Your task to perform on an android device: Check the news Image 0: 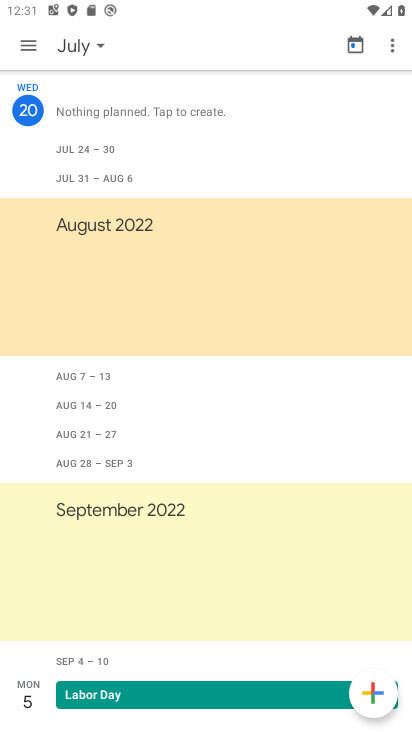
Step 0: press home button
Your task to perform on an android device: Check the news Image 1: 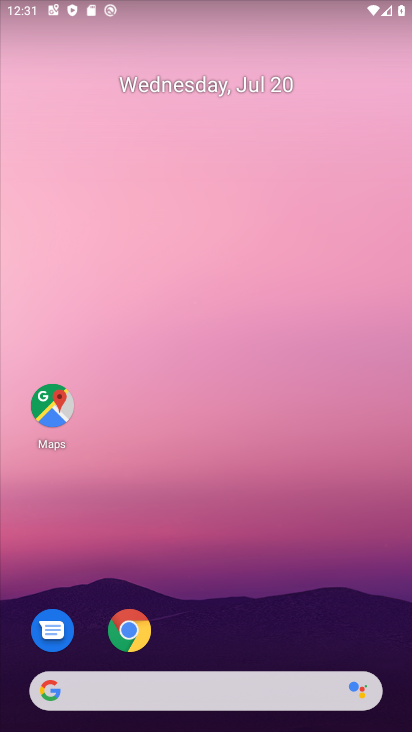
Step 1: click (220, 686)
Your task to perform on an android device: Check the news Image 2: 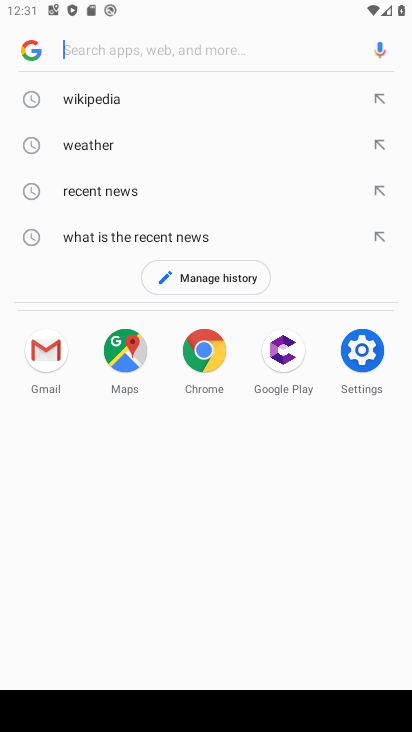
Step 2: type "news"
Your task to perform on an android device: Check the news Image 3: 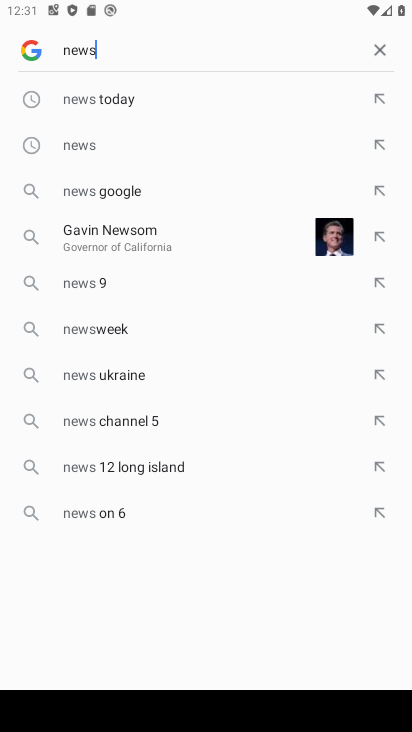
Step 3: click (88, 149)
Your task to perform on an android device: Check the news Image 4: 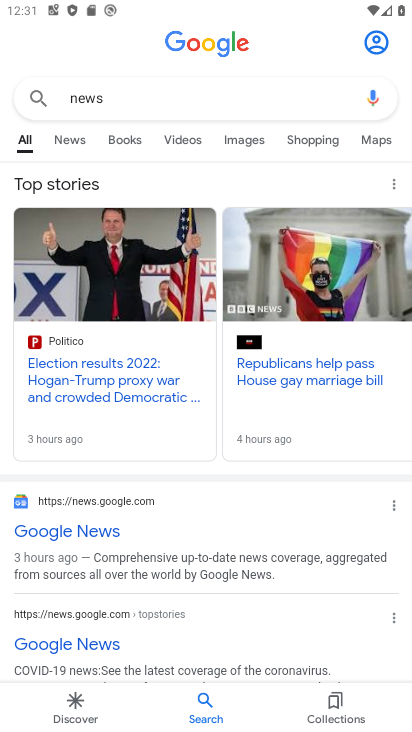
Step 4: click (72, 142)
Your task to perform on an android device: Check the news Image 5: 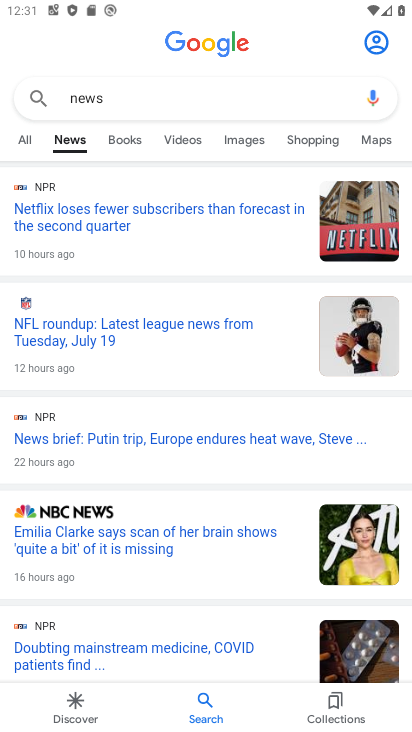
Step 5: task complete